Your task to perform on an android device: uninstall "Fetch Rewards" Image 0: 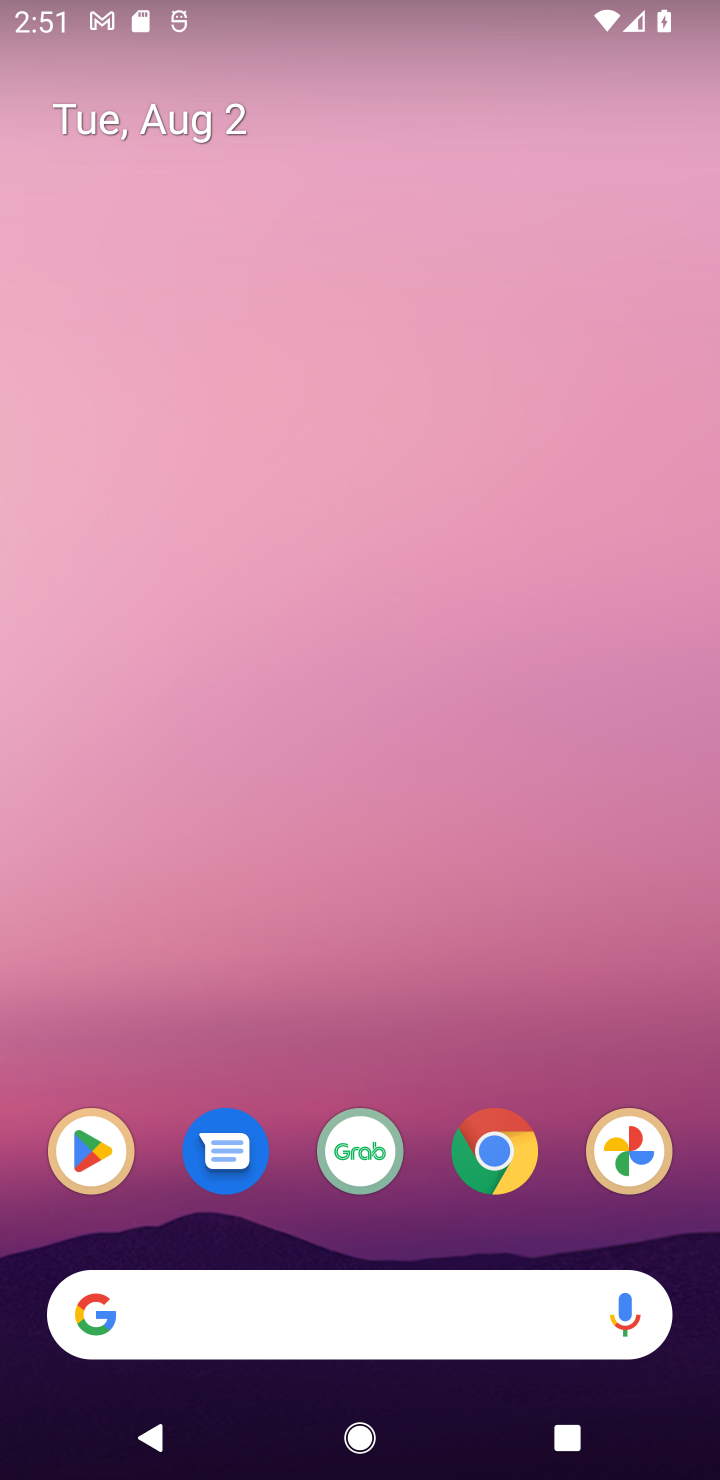
Step 0: drag from (446, 1026) to (419, 150)
Your task to perform on an android device: uninstall "Fetch Rewards" Image 1: 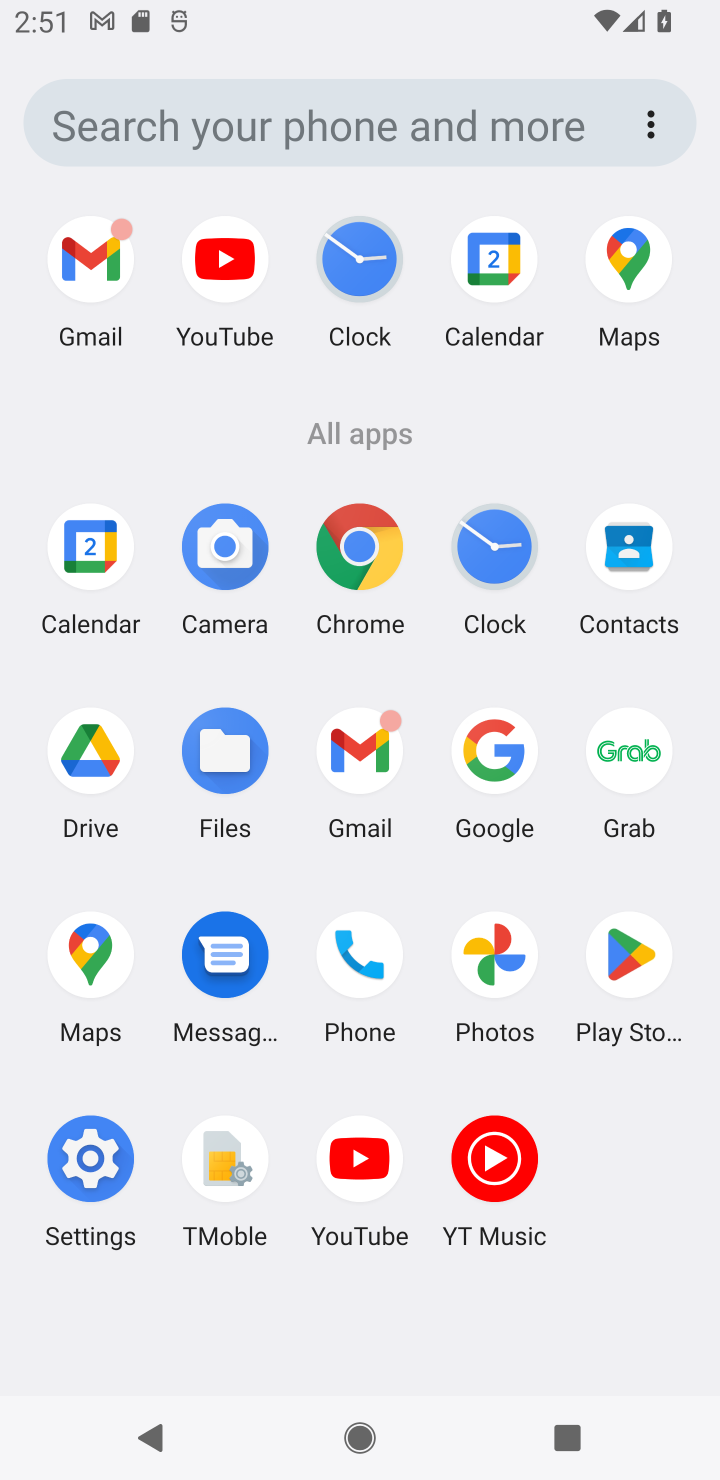
Step 1: click (625, 949)
Your task to perform on an android device: uninstall "Fetch Rewards" Image 2: 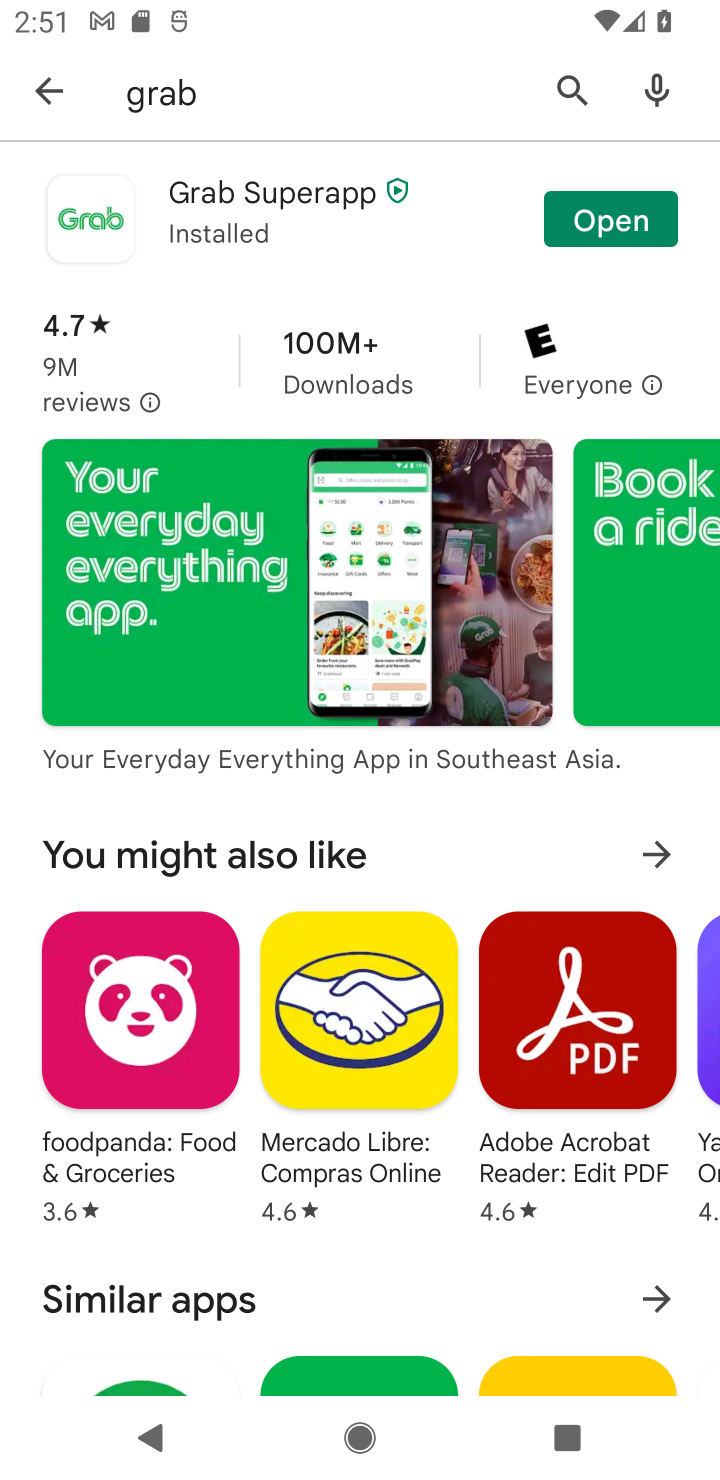
Step 2: press back button
Your task to perform on an android device: uninstall "Fetch Rewards" Image 3: 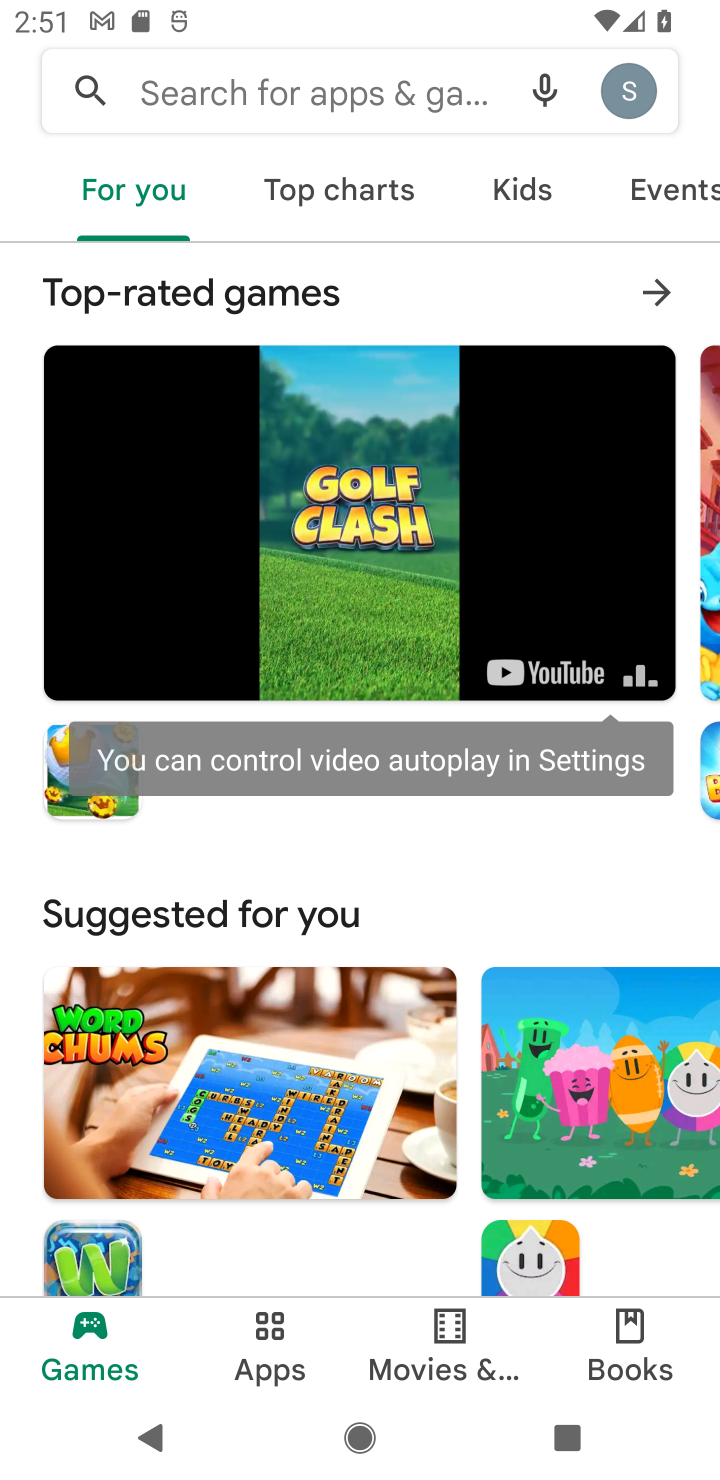
Step 3: click (268, 94)
Your task to perform on an android device: uninstall "Fetch Rewards" Image 4: 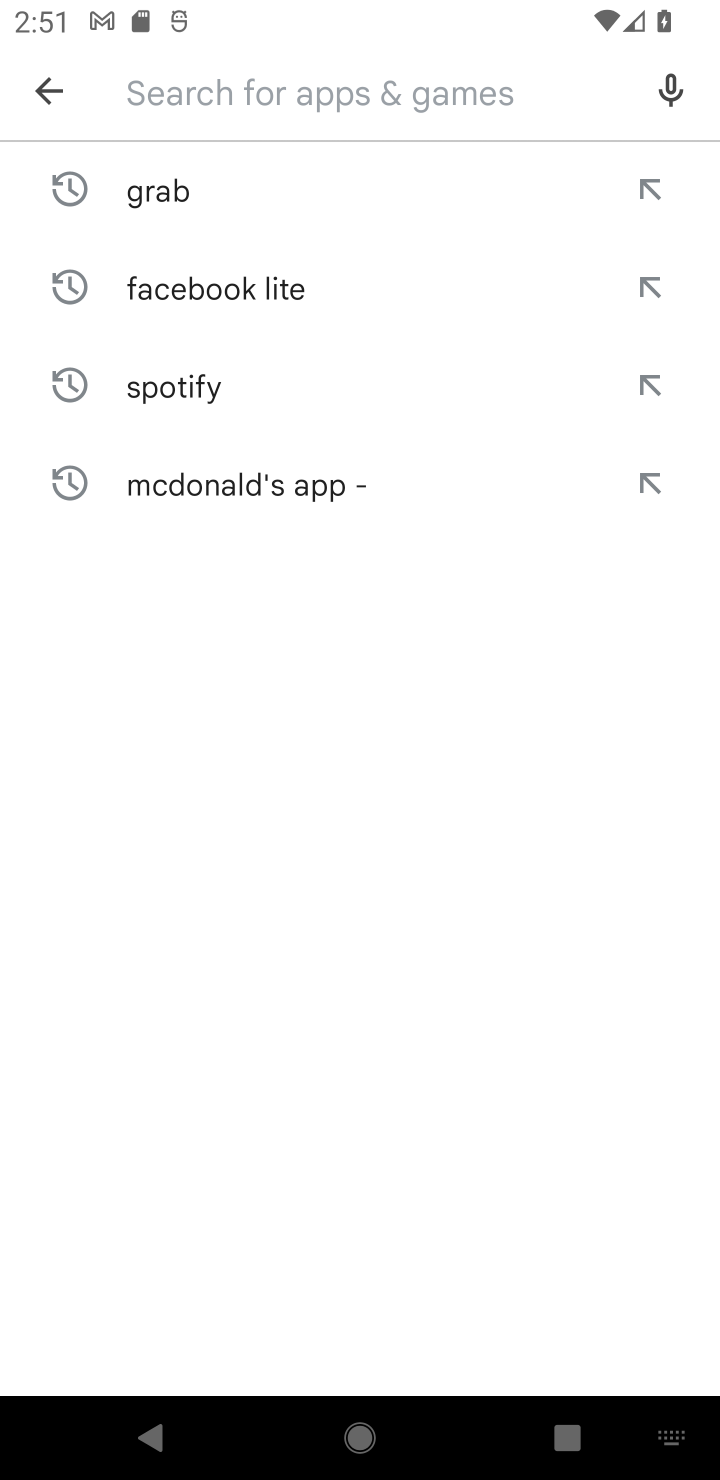
Step 4: type "Fetch Rewards"
Your task to perform on an android device: uninstall "Fetch Rewards" Image 5: 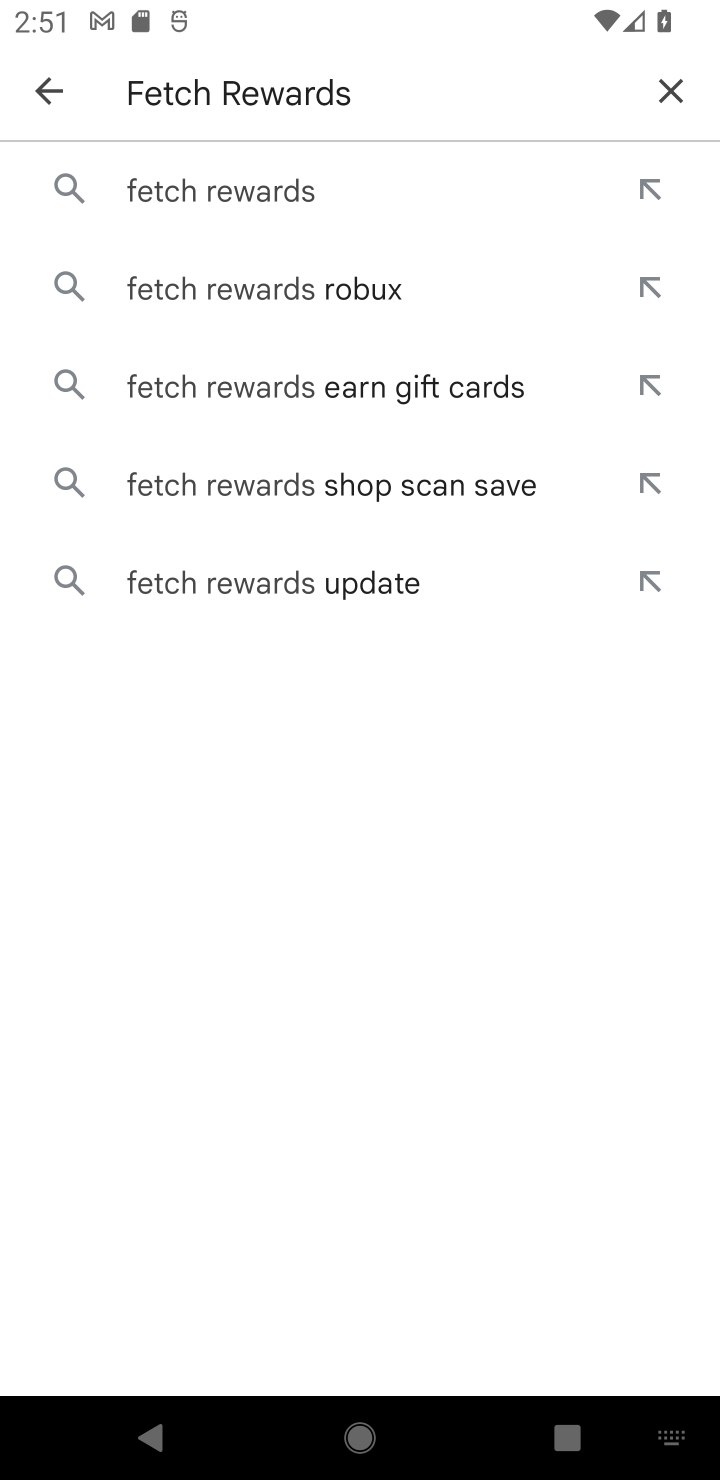
Step 5: click (174, 177)
Your task to perform on an android device: uninstall "Fetch Rewards" Image 6: 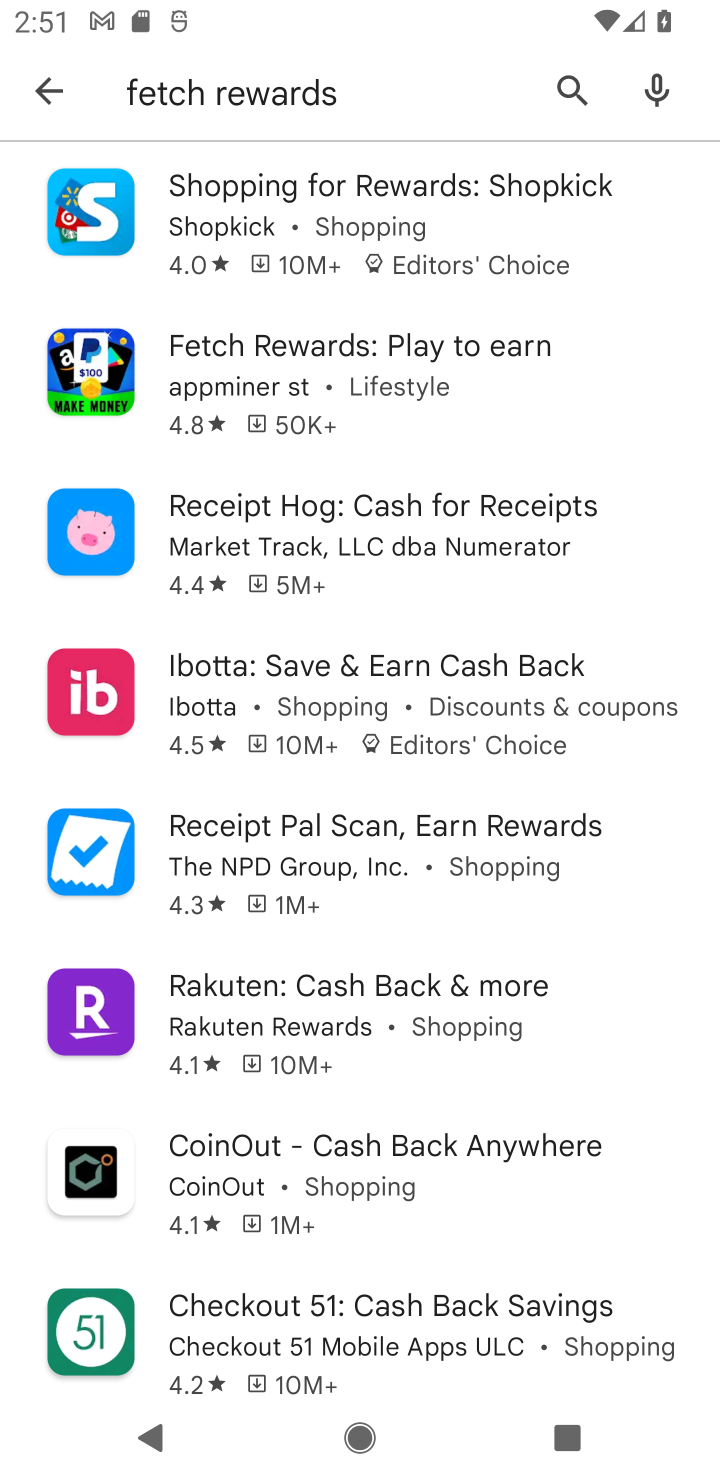
Step 6: click (315, 402)
Your task to perform on an android device: uninstall "Fetch Rewards" Image 7: 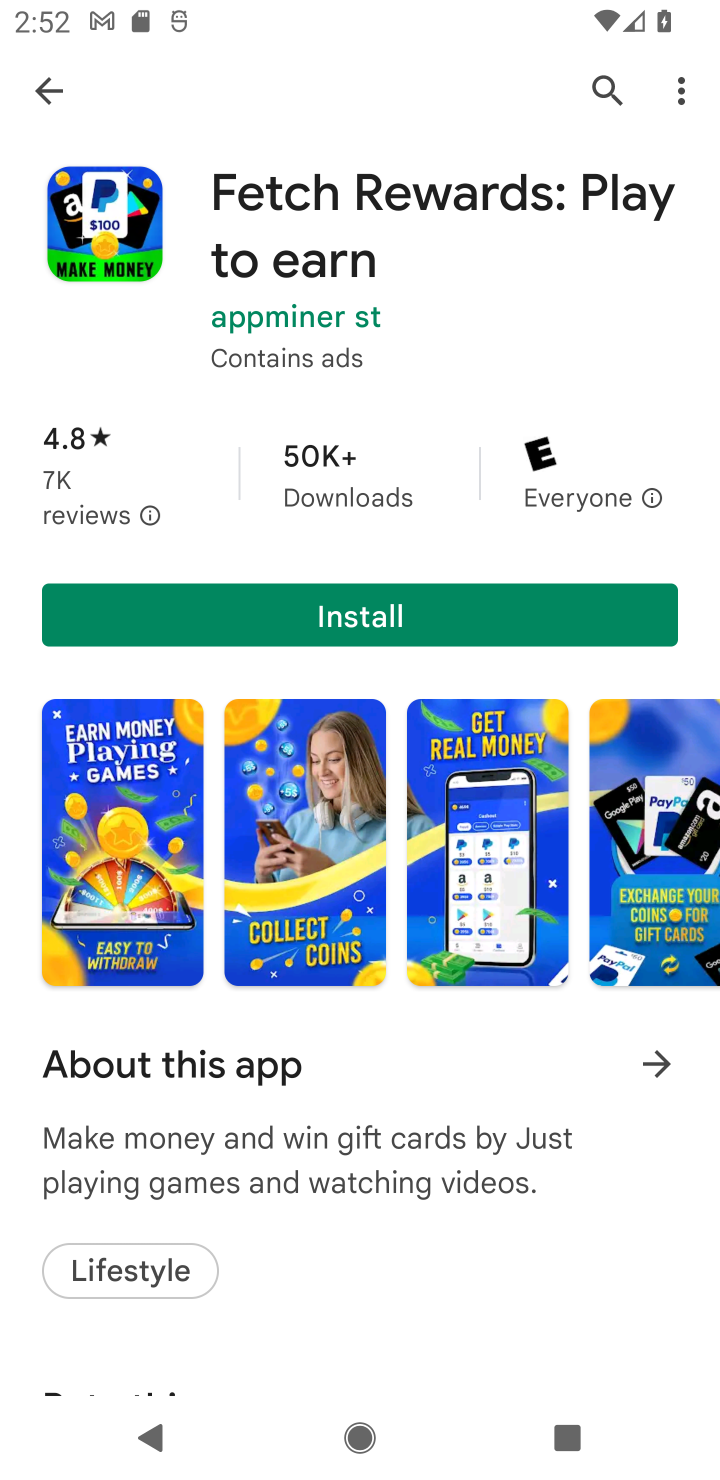
Step 7: task complete